Your task to perform on an android device: Go to Reddit.com Image 0: 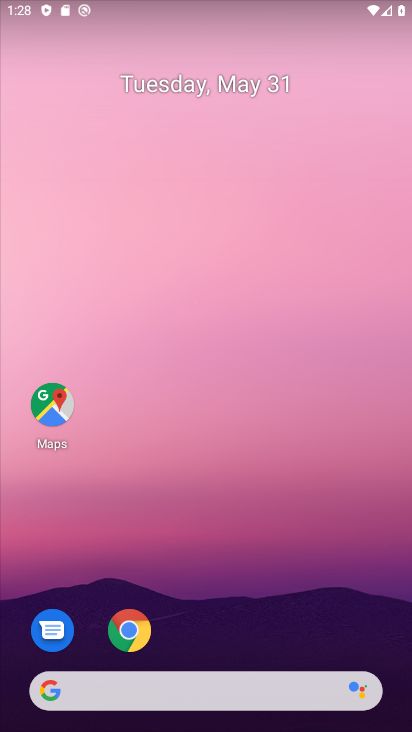
Step 0: click (179, 48)
Your task to perform on an android device: Go to Reddit.com Image 1: 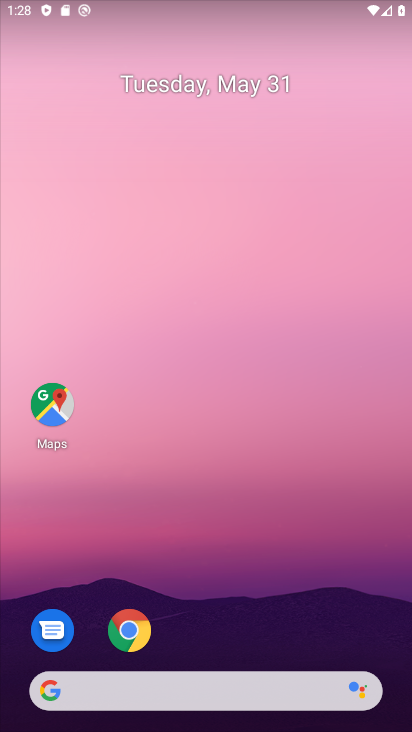
Step 1: press back button
Your task to perform on an android device: Go to Reddit.com Image 2: 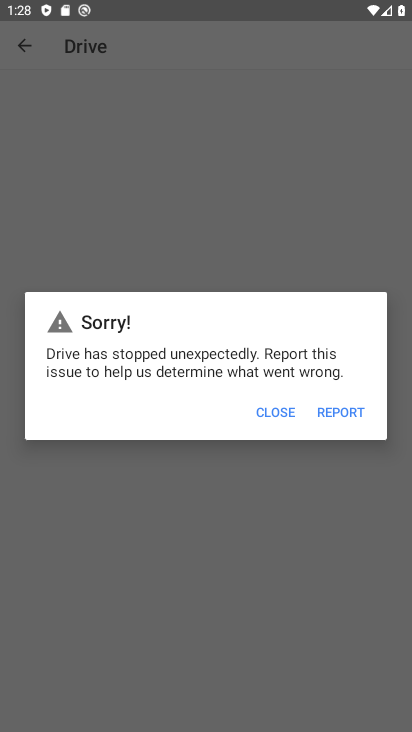
Step 2: press home button
Your task to perform on an android device: Go to Reddit.com Image 3: 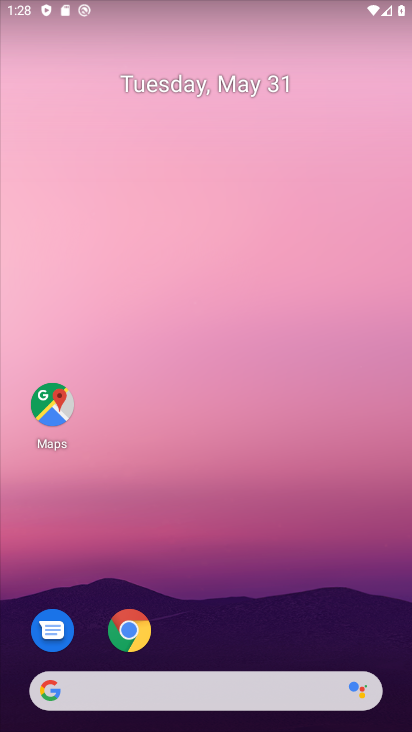
Step 3: drag from (271, 575) to (232, 0)
Your task to perform on an android device: Go to Reddit.com Image 4: 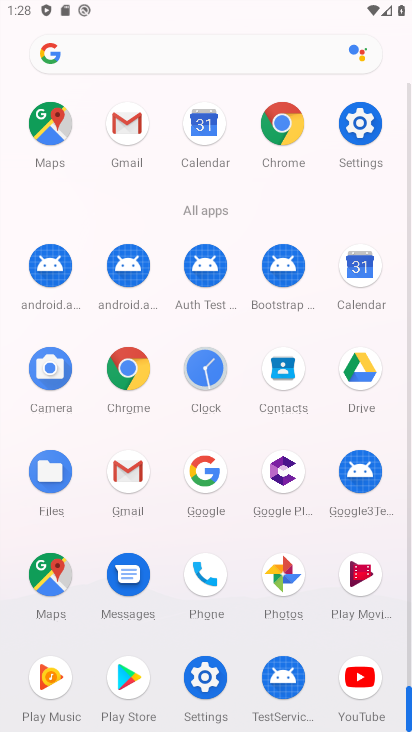
Step 4: click (123, 370)
Your task to perform on an android device: Go to Reddit.com Image 5: 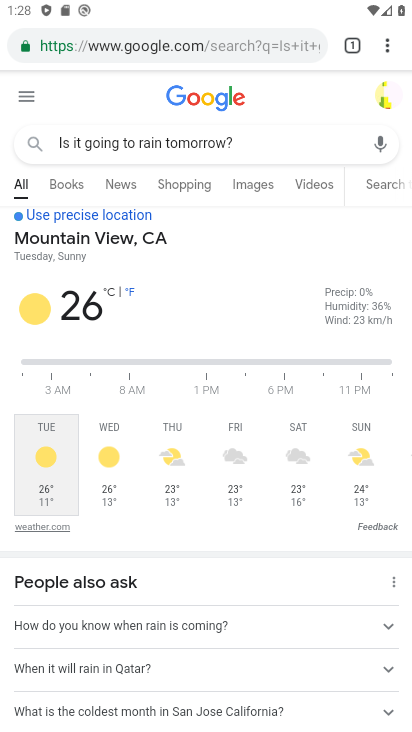
Step 5: click (169, 50)
Your task to perform on an android device: Go to Reddit.com Image 6: 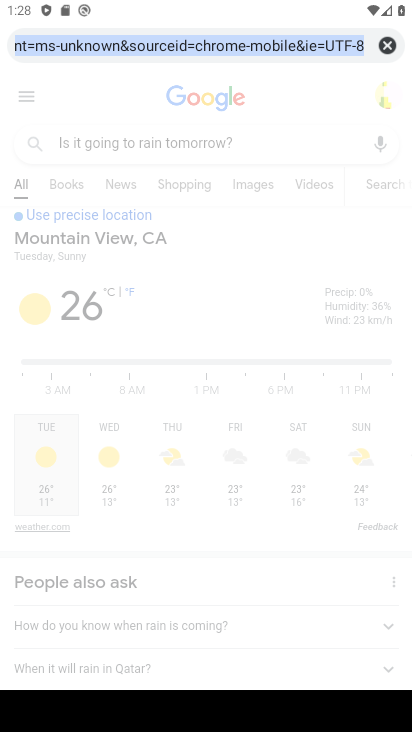
Step 6: click (382, 43)
Your task to perform on an android device: Go to Reddit.com Image 7: 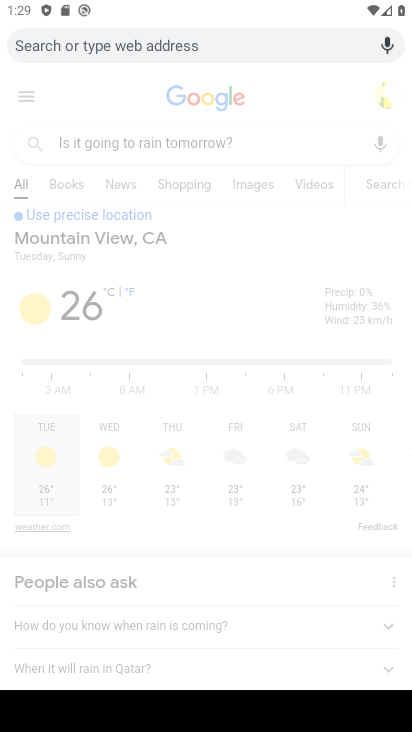
Step 7: type "Reddit.com"
Your task to perform on an android device: Go to Reddit.com Image 8: 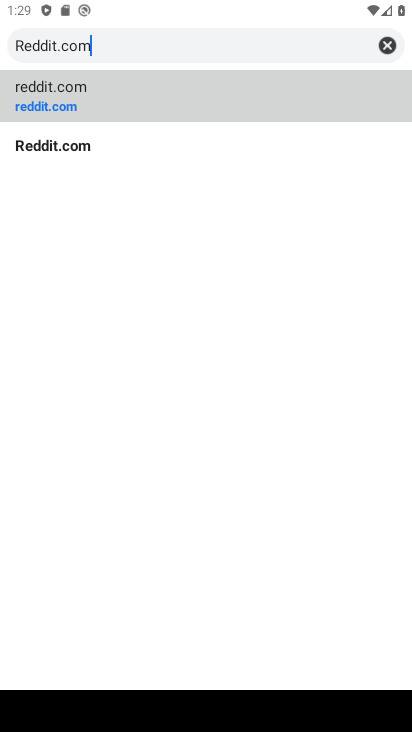
Step 8: type ""
Your task to perform on an android device: Go to Reddit.com Image 9: 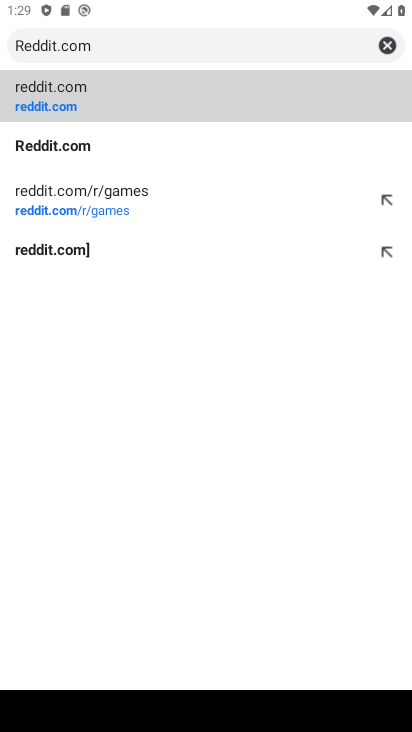
Step 9: click (77, 99)
Your task to perform on an android device: Go to Reddit.com Image 10: 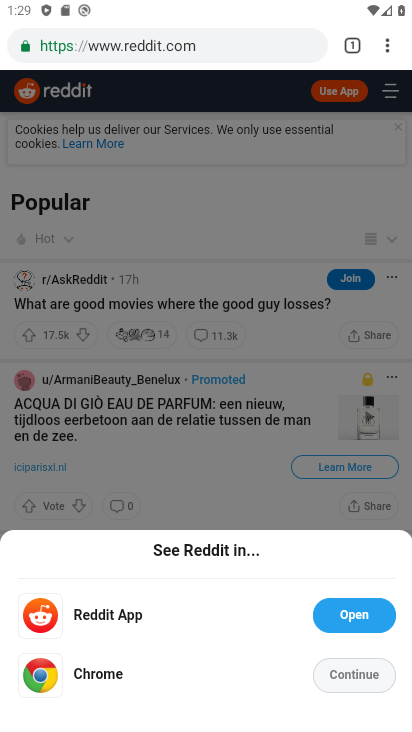
Step 10: task complete